Your task to perform on an android device: turn notification dots off Image 0: 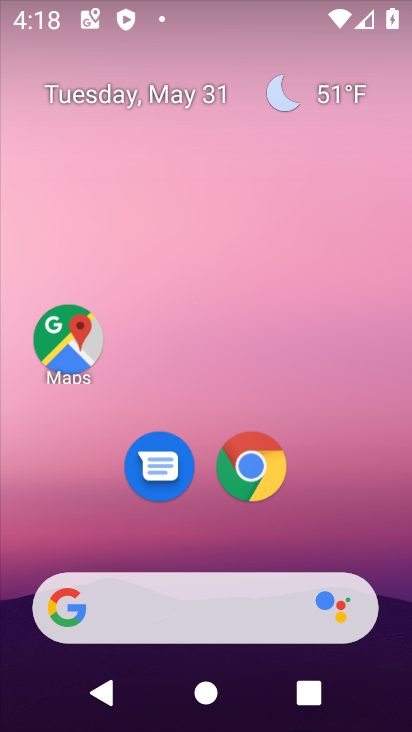
Step 0: drag from (206, 529) to (257, 86)
Your task to perform on an android device: turn notification dots off Image 1: 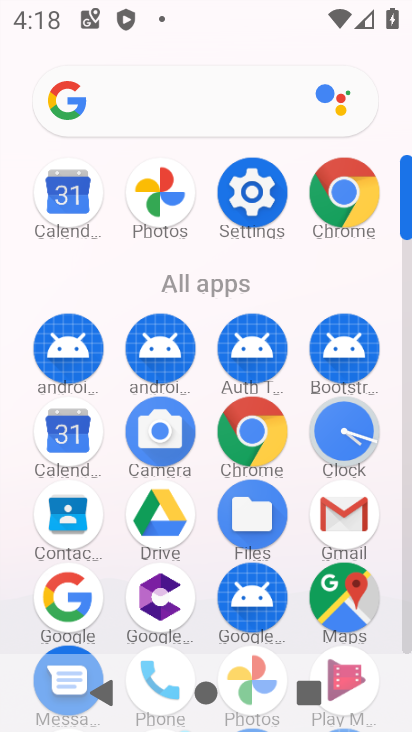
Step 1: click (248, 192)
Your task to perform on an android device: turn notification dots off Image 2: 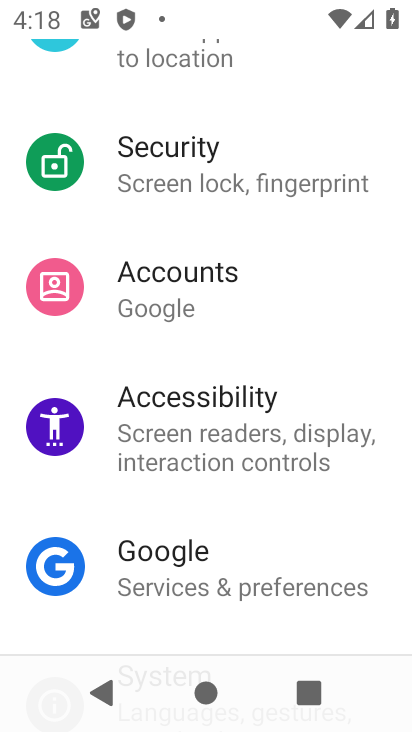
Step 2: drag from (202, 109) to (236, 691)
Your task to perform on an android device: turn notification dots off Image 3: 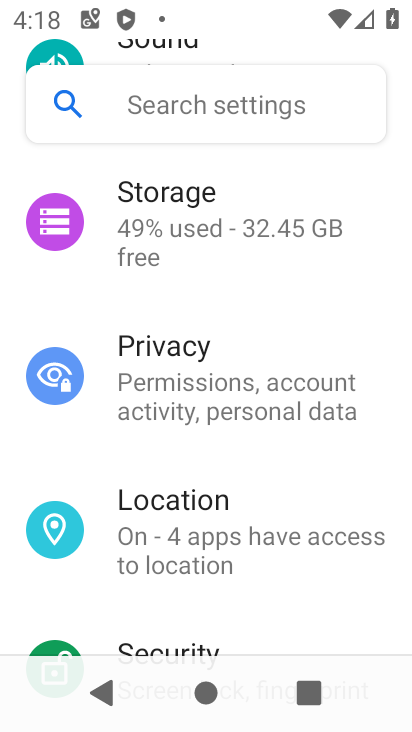
Step 3: drag from (215, 188) to (246, 692)
Your task to perform on an android device: turn notification dots off Image 4: 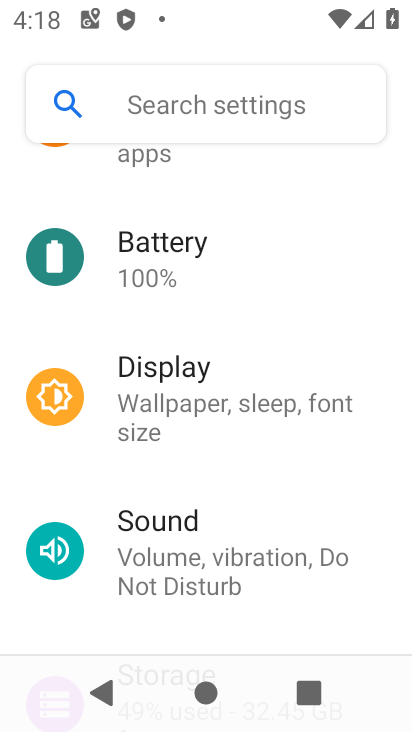
Step 4: drag from (212, 199) to (236, 641)
Your task to perform on an android device: turn notification dots off Image 5: 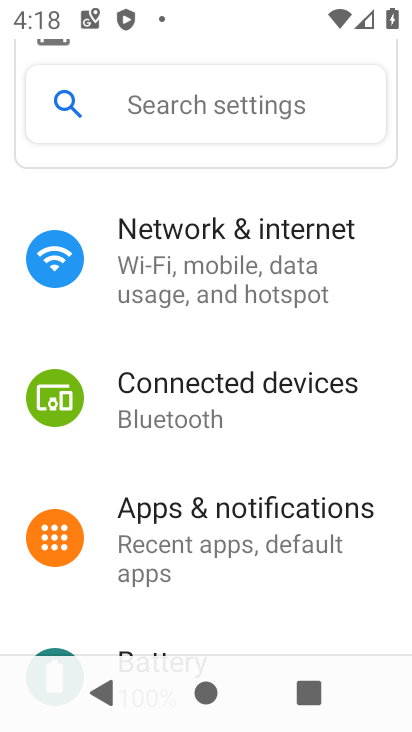
Step 5: click (255, 532)
Your task to perform on an android device: turn notification dots off Image 6: 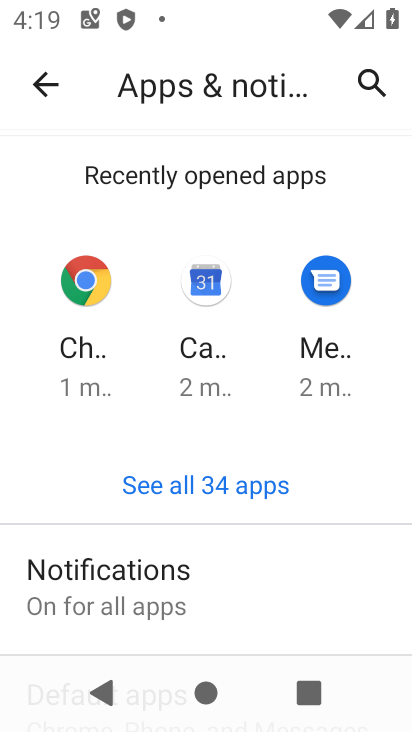
Step 6: click (216, 587)
Your task to perform on an android device: turn notification dots off Image 7: 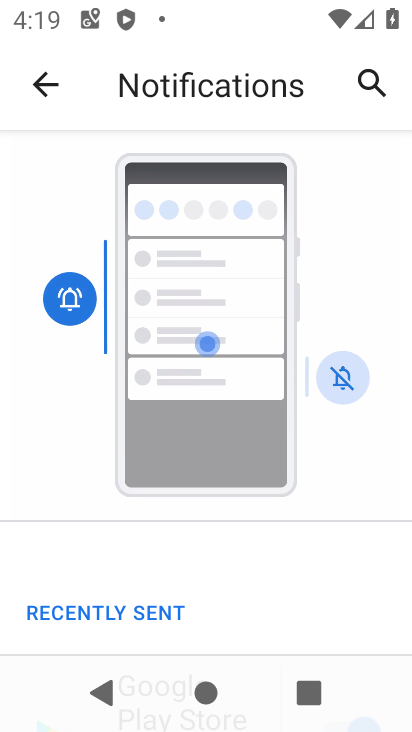
Step 7: drag from (219, 627) to (216, 108)
Your task to perform on an android device: turn notification dots off Image 8: 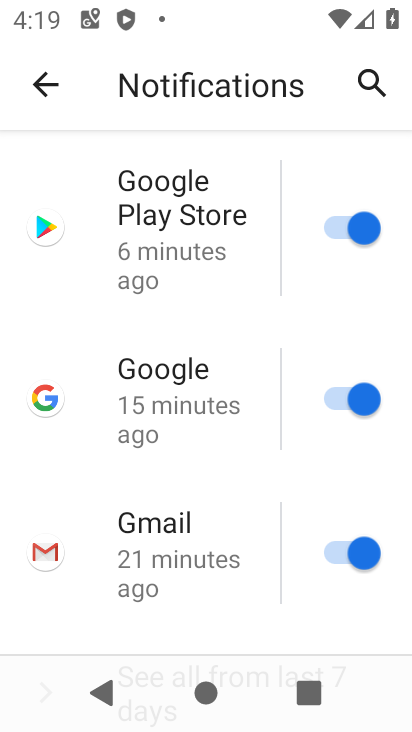
Step 8: drag from (227, 625) to (239, 211)
Your task to perform on an android device: turn notification dots off Image 9: 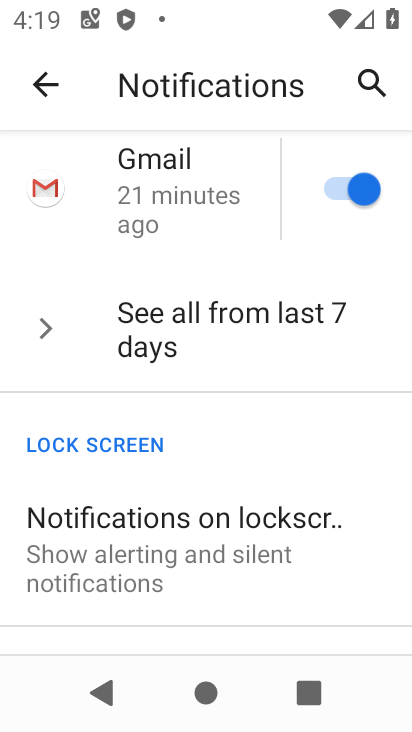
Step 9: drag from (224, 614) to (240, 147)
Your task to perform on an android device: turn notification dots off Image 10: 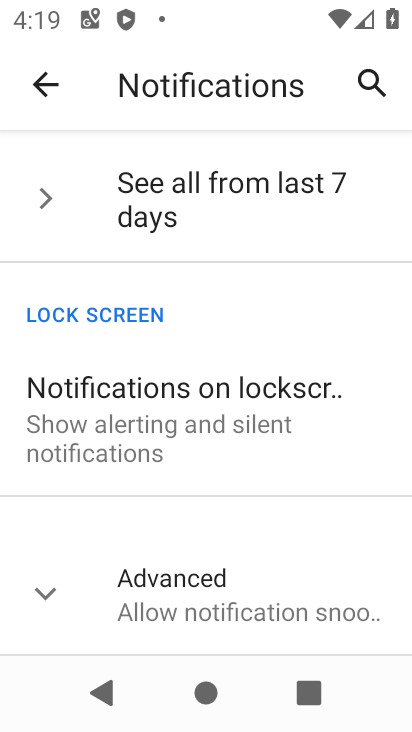
Step 10: click (47, 585)
Your task to perform on an android device: turn notification dots off Image 11: 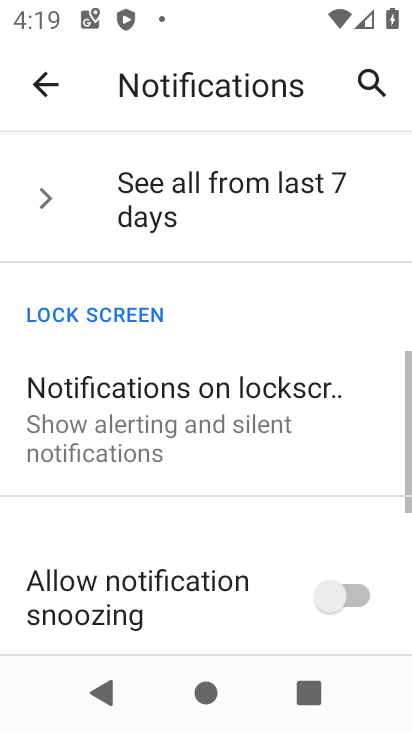
Step 11: drag from (207, 606) to (241, 112)
Your task to perform on an android device: turn notification dots off Image 12: 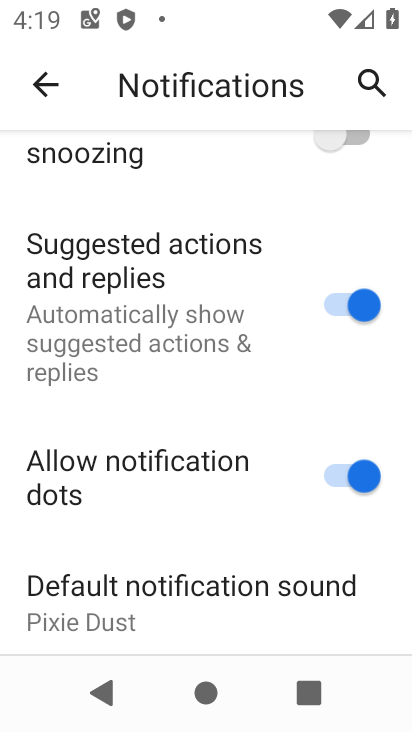
Step 12: drag from (209, 607) to (211, 232)
Your task to perform on an android device: turn notification dots off Image 13: 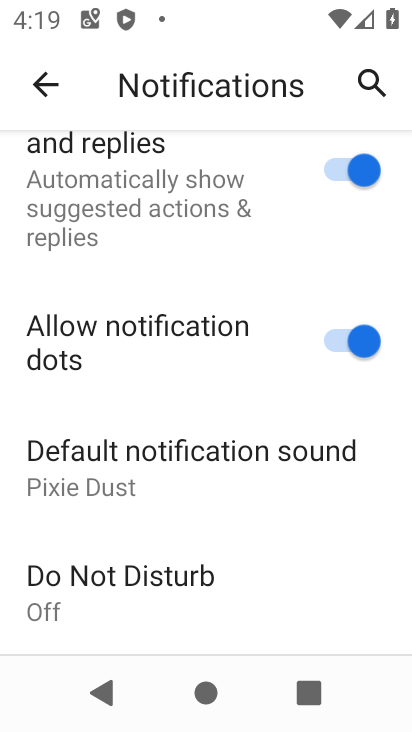
Step 13: click (337, 335)
Your task to perform on an android device: turn notification dots off Image 14: 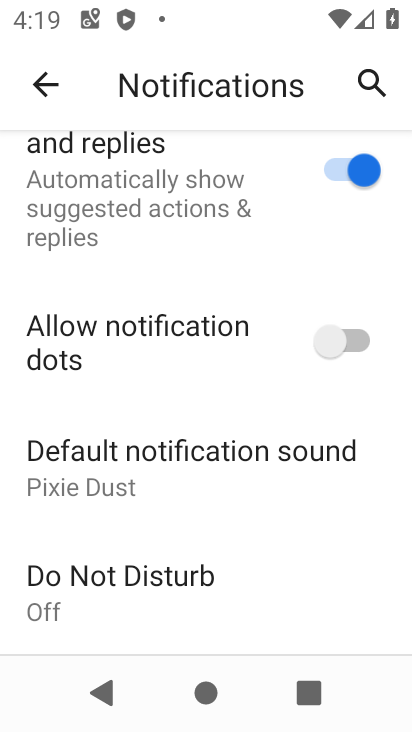
Step 14: task complete